Your task to perform on an android device: open wifi settings Image 0: 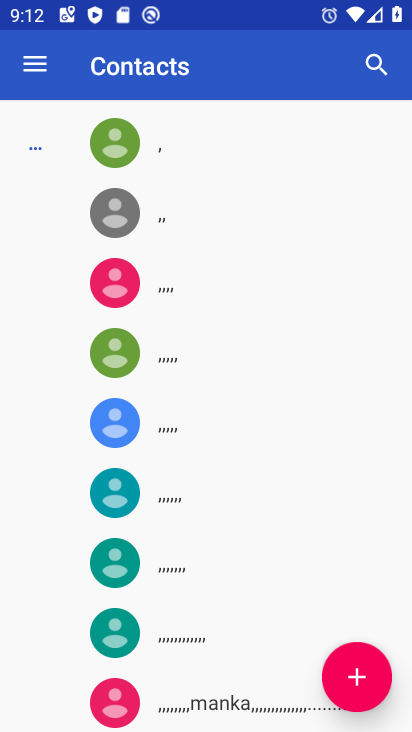
Step 0: press home button
Your task to perform on an android device: open wifi settings Image 1: 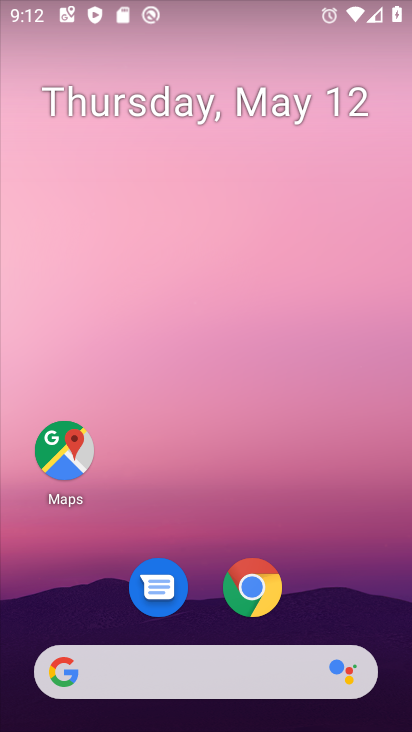
Step 1: drag from (348, 604) to (327, 287)
Your task to perform on an android device: open wifi settings Image 2: 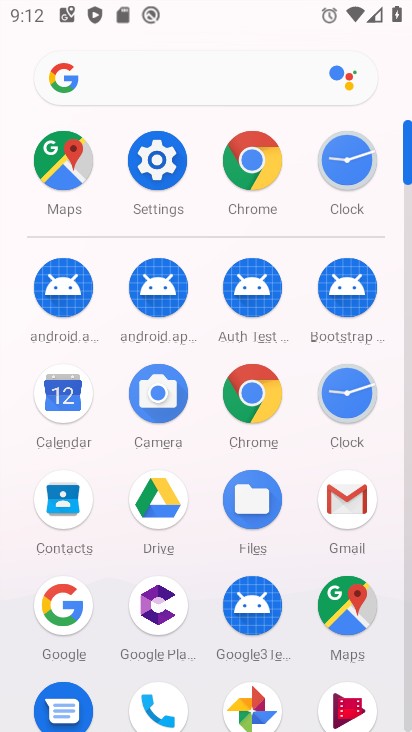
Step 2: click (163, 172)
Your task to perform on an android device: open wifi settings Image 3: 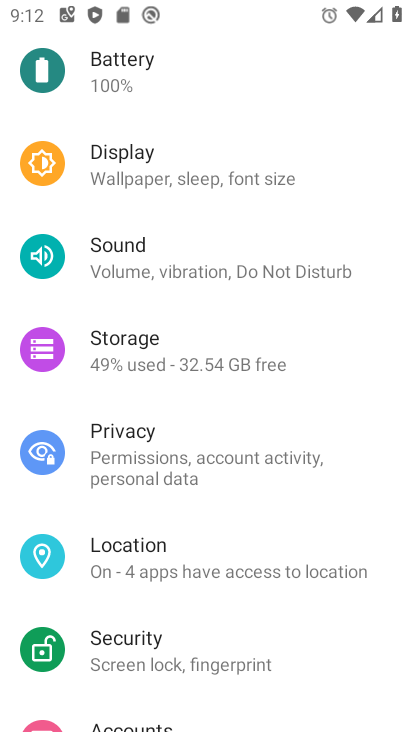
Step 3: drag from (167, 181) to (153, 612)
Your task to perform on an android device: open wifi settings Image 4: 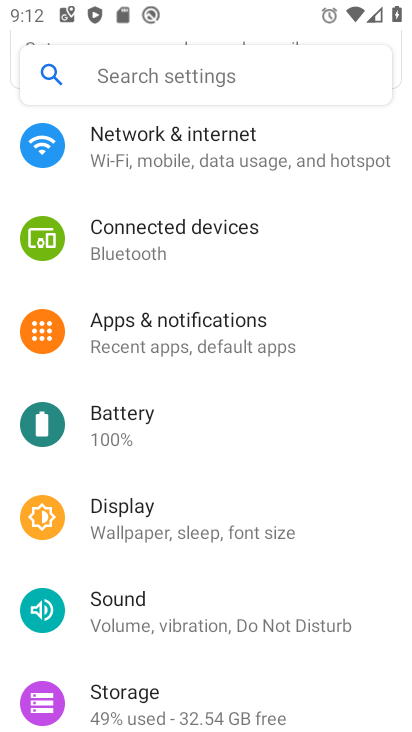
Step 4: click (181, 143)
Your task to perform on an android device: open wifi settings Image 5: 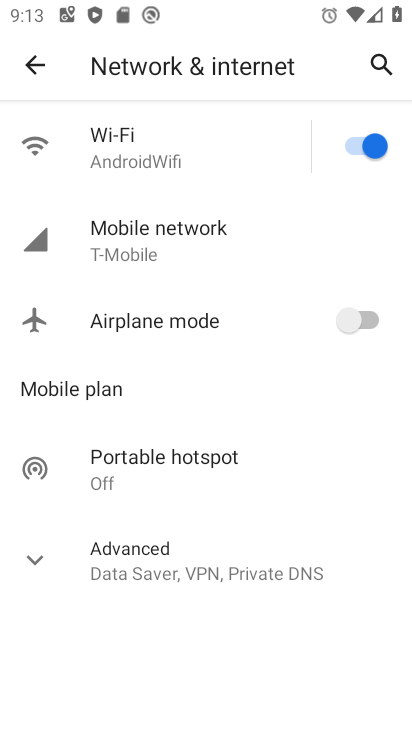
Step 5: task complete